Your task to perform on an android device: uninstall "Paramount+ | Peak Streaming" Image 0: 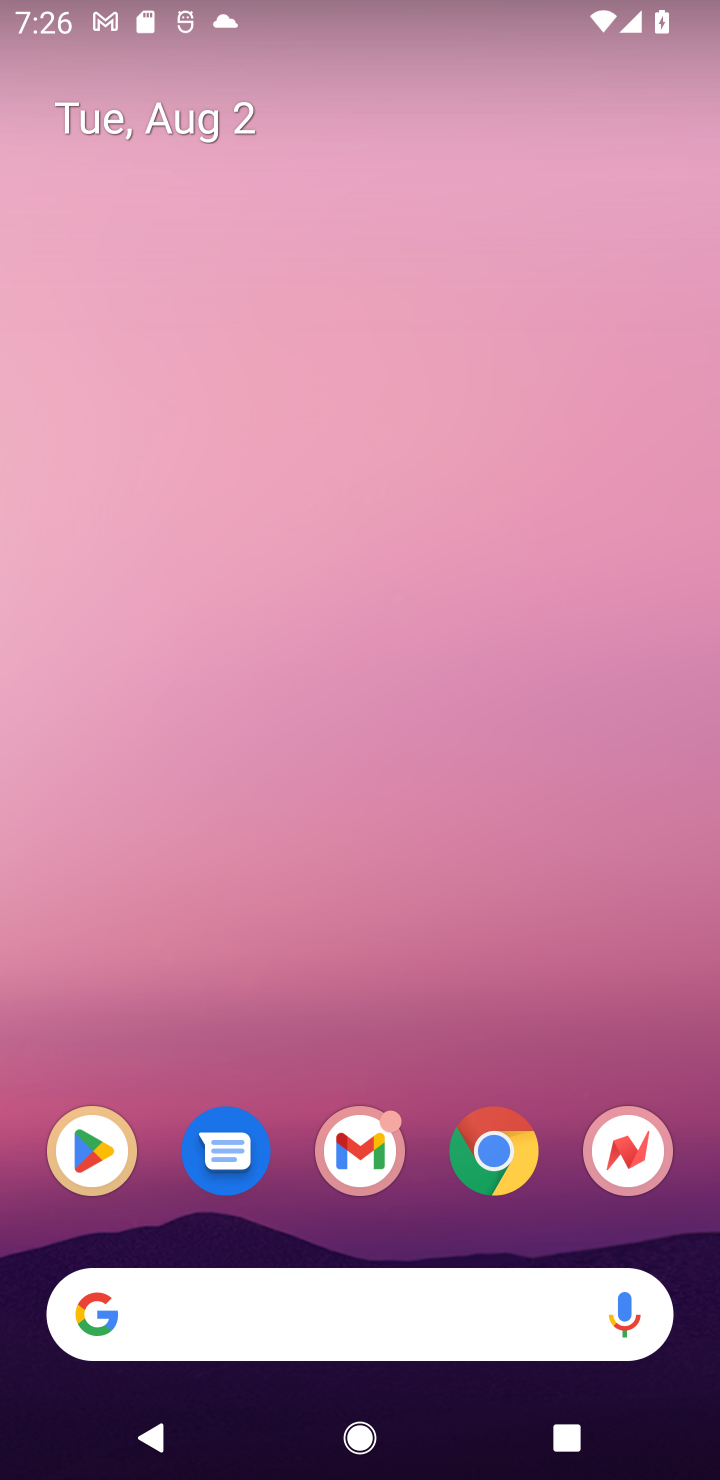
Step 0: click (90, 1145)
Your task to perform on an android device: uninstall "Paramount+ | Peak Streaming" Image 1: 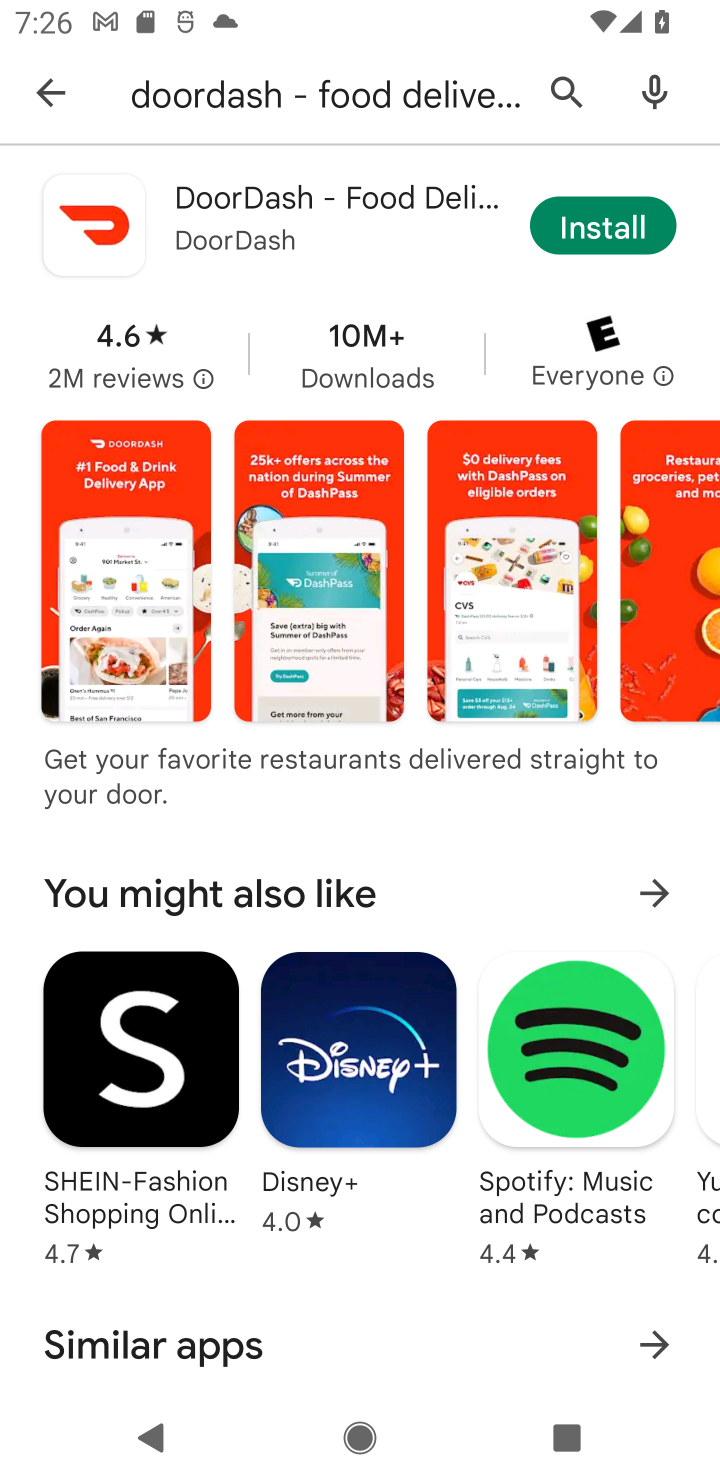
Step 1: click (553, 90)
Your task to perform on an android device: uninstall "Paramount+ | Peak Streaming" Image 2: 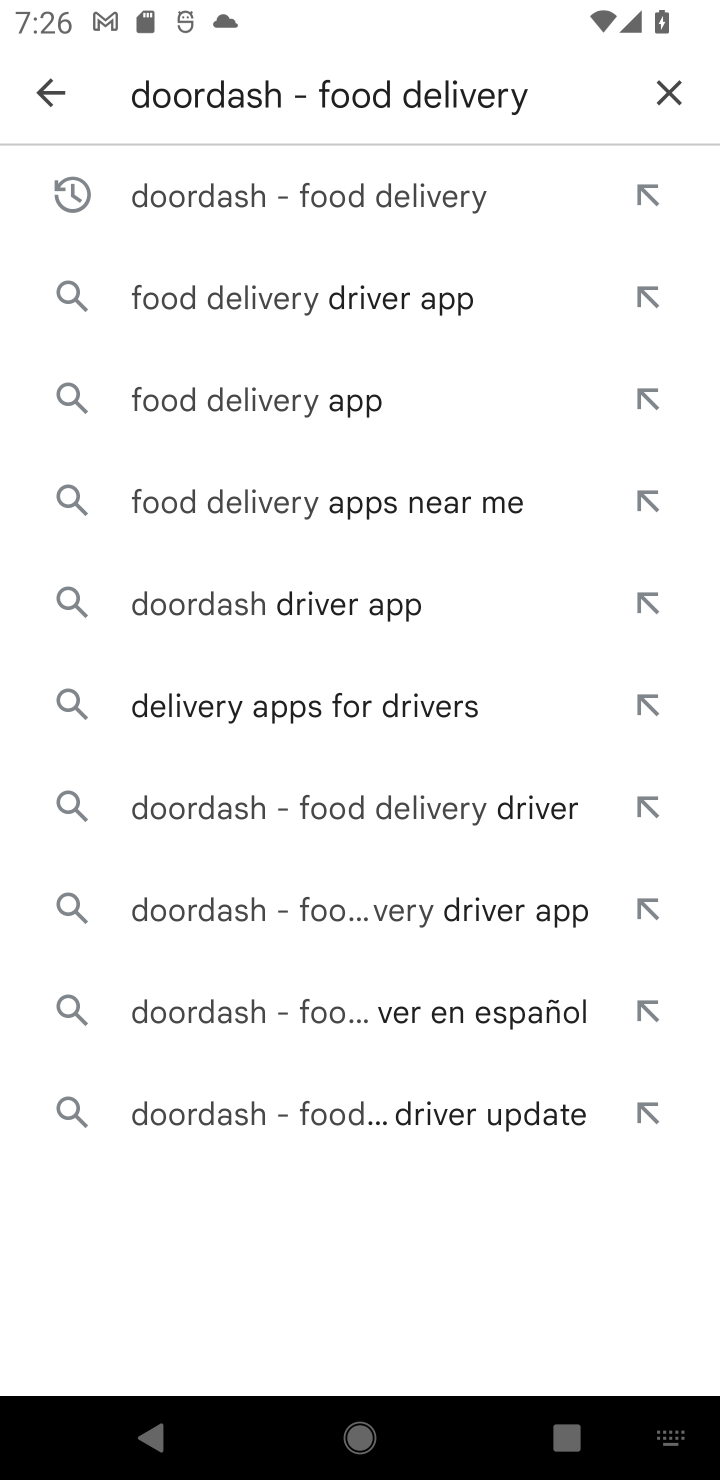
Step 2: click (660, 97)
Your task to perform on an android device: uninstall "Paramount+ | Peak Streaming" Image 3: 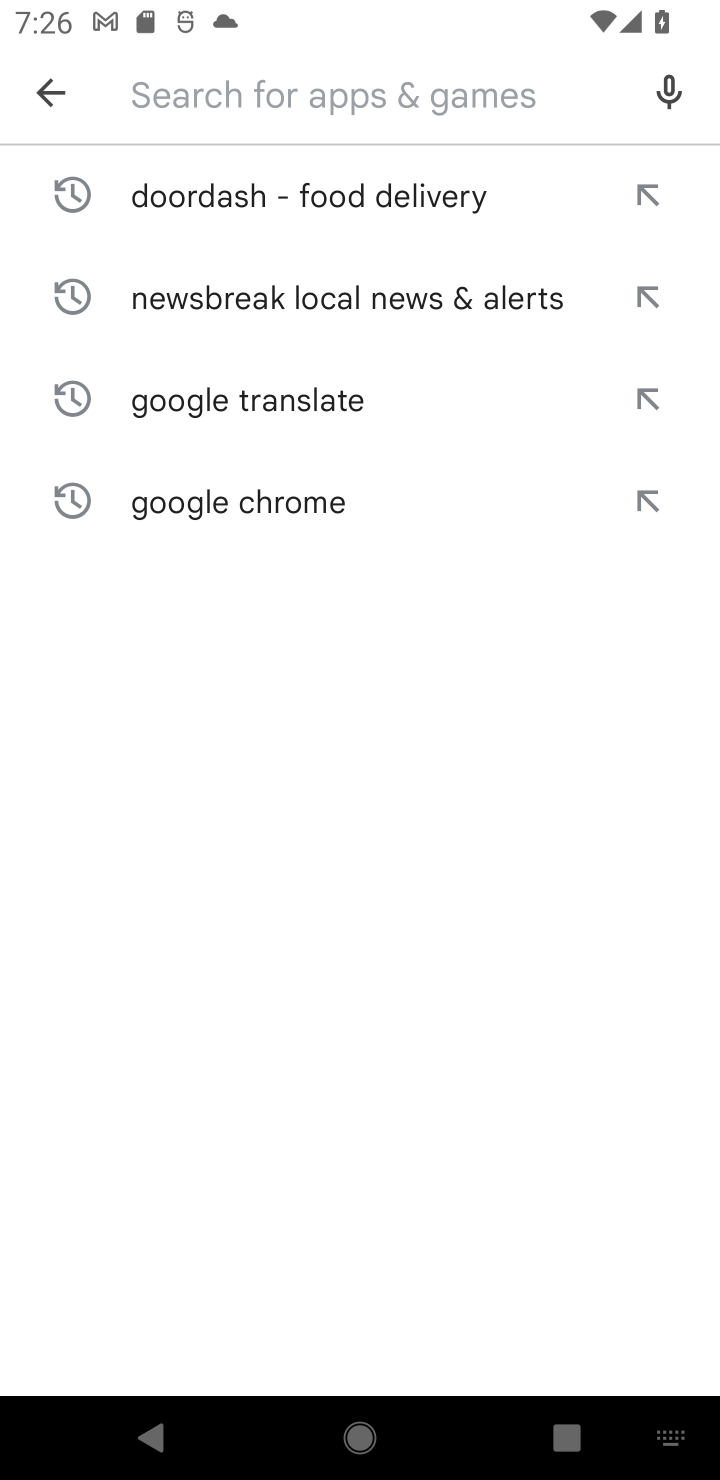
Step 3: type "Paramount+ | Peak Streaming"
Your task to perform on an android device: uninstall "Paramount+ | Peak Streaming" Image 4: 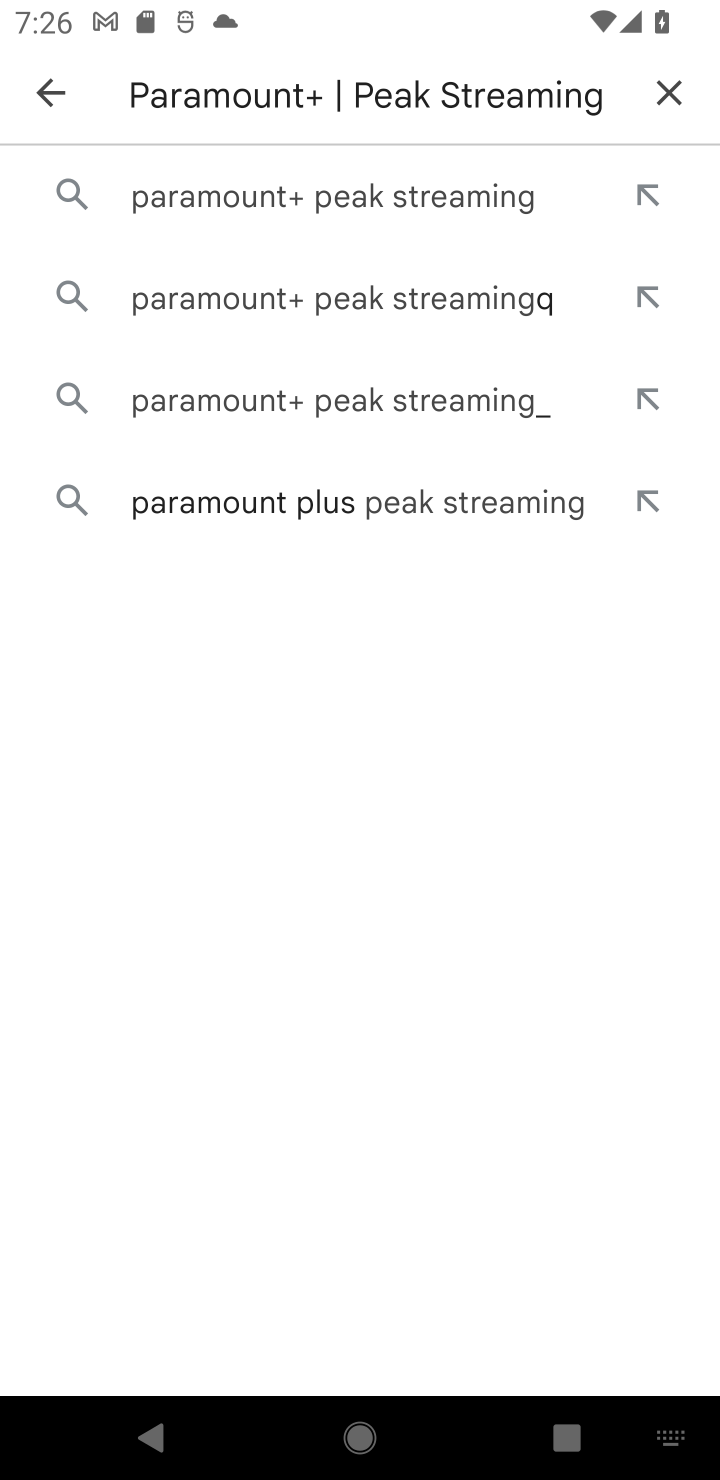
Step 4: click (288, 207)
Your task to perform on an android device: uninstall "Paramount+ | Peak Streaming" Image 5: 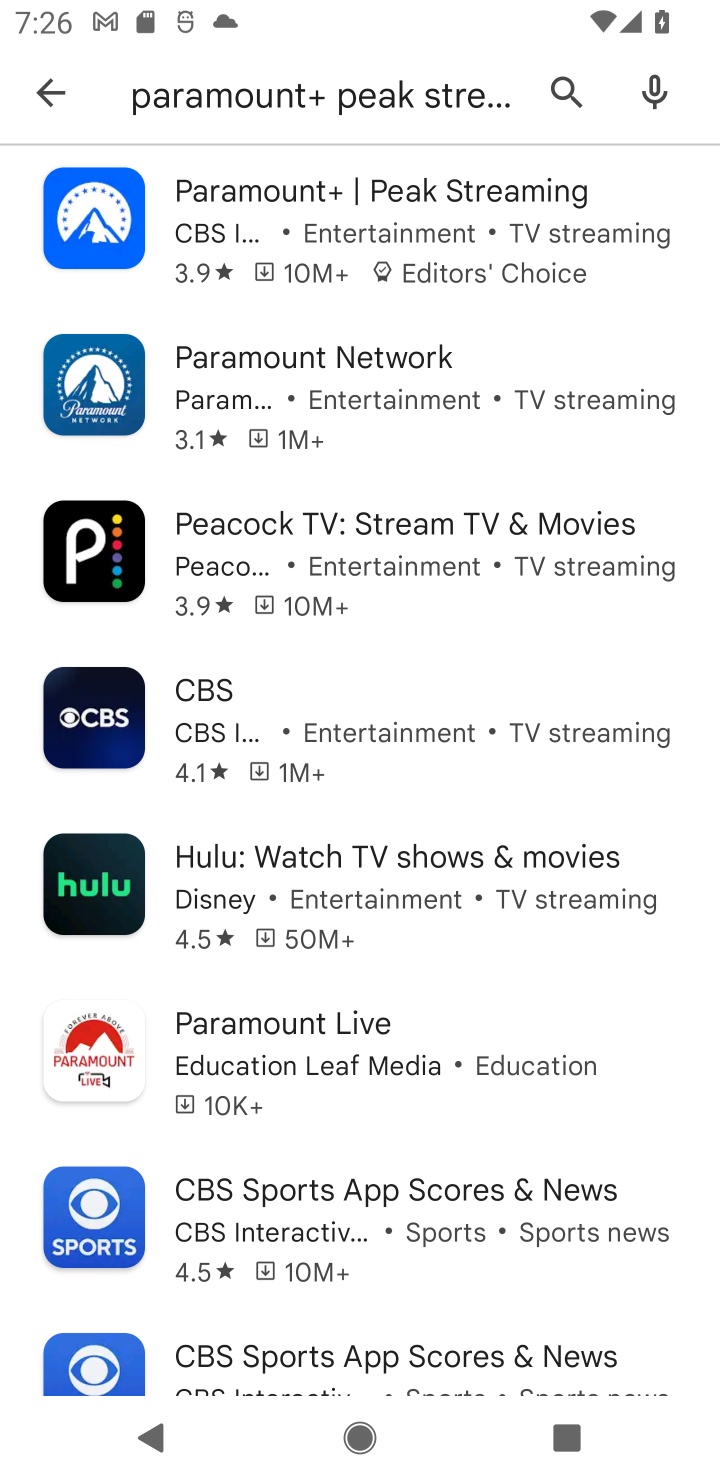
Step 5: click (399, 205)
Your task to perform on an android device: uninstall "Paramount+ | Peak Streaming" Image 6: 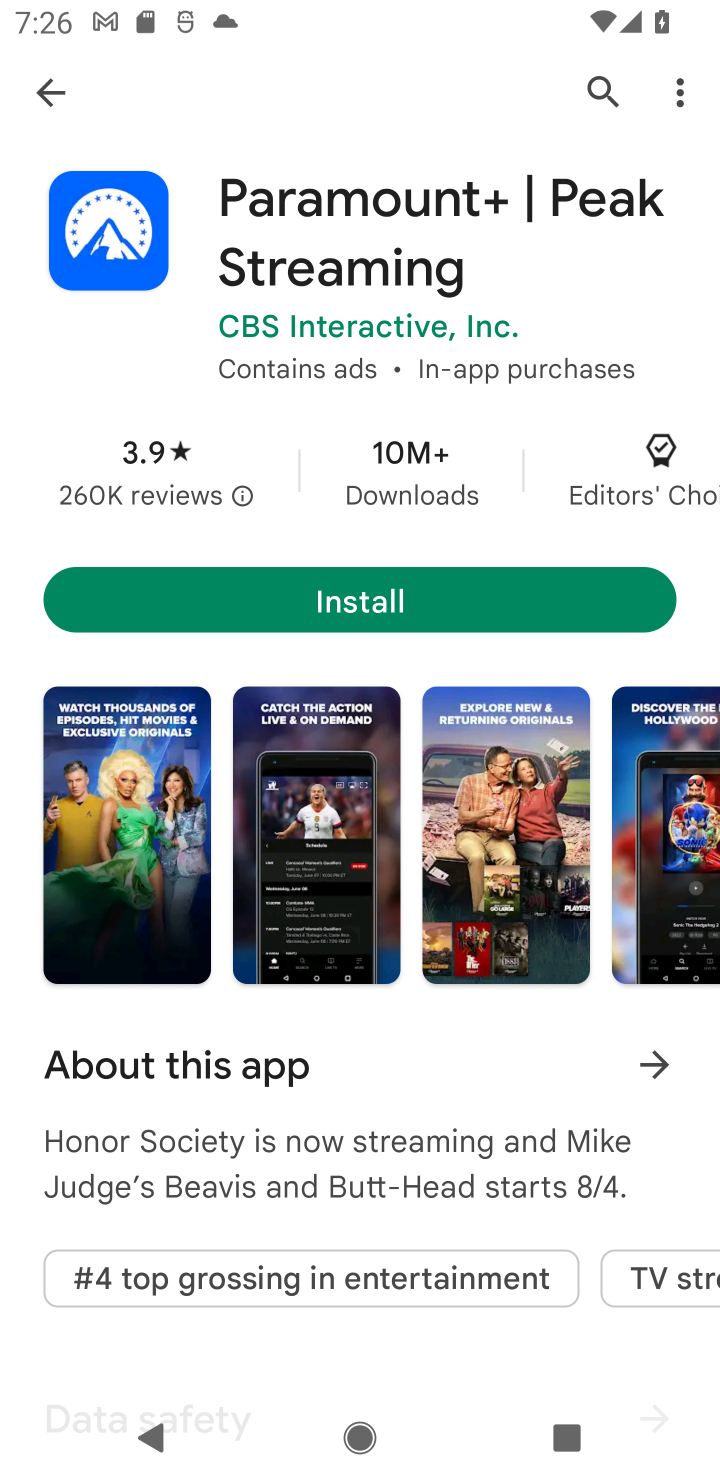
Step 6: task complete